Your task to perform on an android device: change notifications settings Image 0: 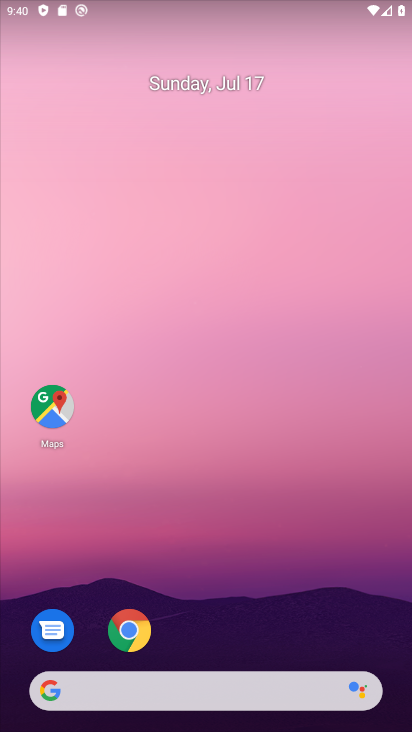
Step 0: drag from (249, 620) to (309, 0)
Your task to perform on an android device: change notifications settings Image 1: 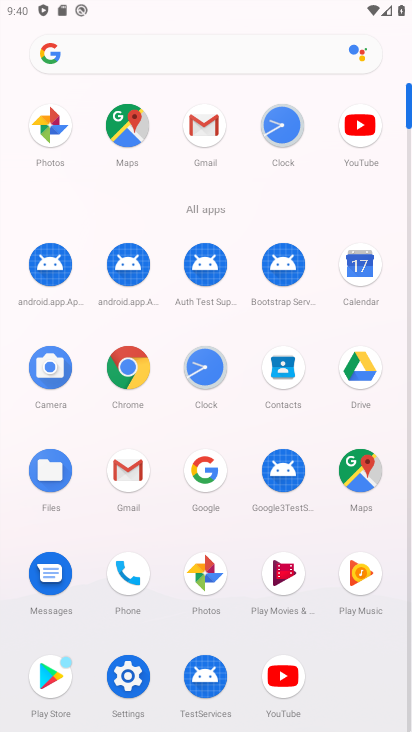
Step 1: click (131, 692)
Your task to perform on an android device: change notifications settings Image 2: 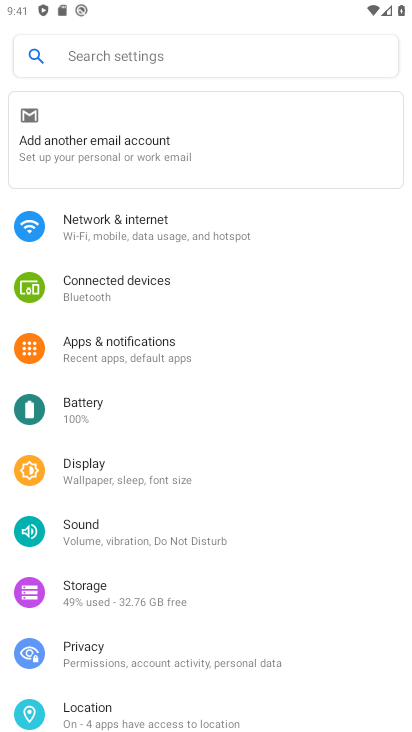
Step 2: click (148, 358)
Your task to perform on an android device: change notifications settings Image 3: 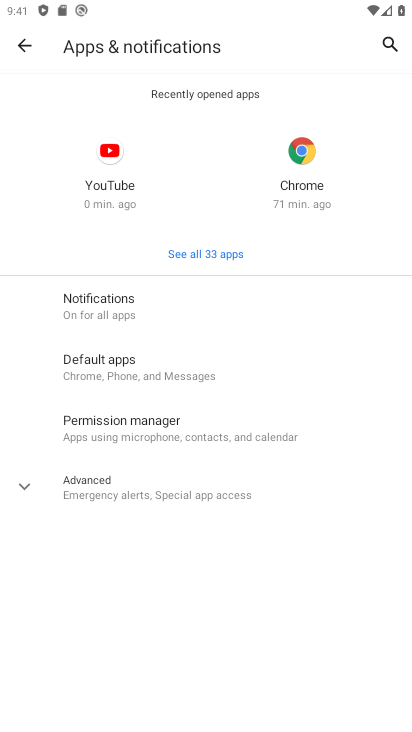
Step 3: click (116, 309)
Your task to perform on an android device: change notifications settings Image 4: 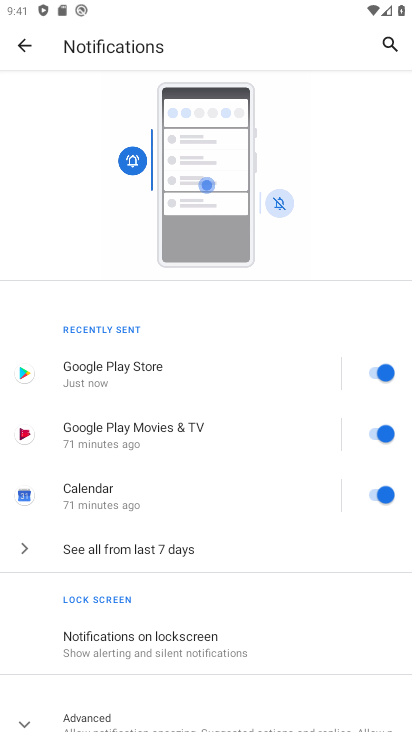
Step 4: click (135, 555)
Your task to perform on an android device: change notifications settings Image 5: 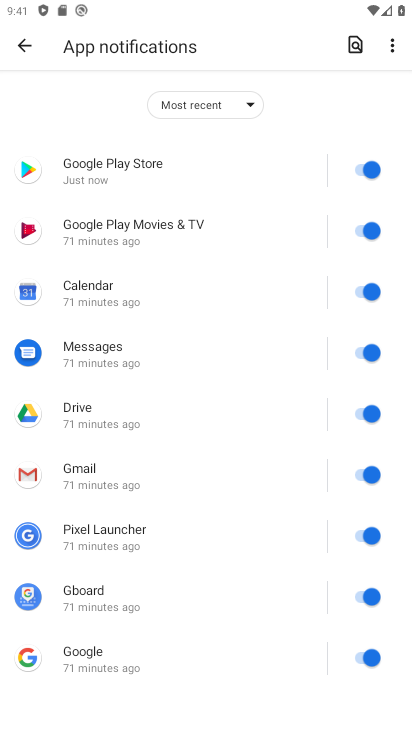
Step 5: click (361, 172)
Your task to perform on an android device: change notifications settings Image 6: 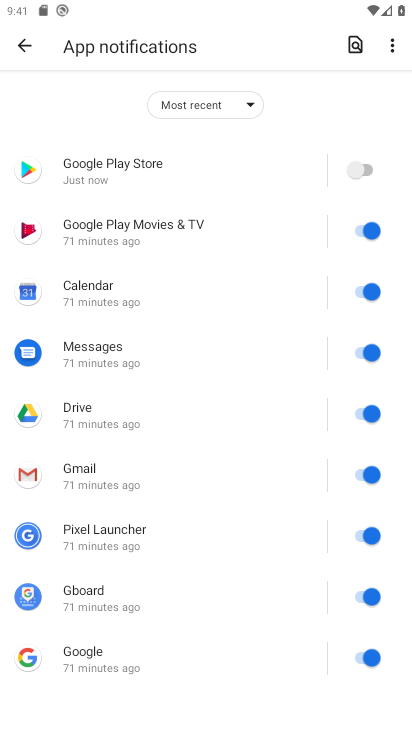
Step 6: click (357, 229)
Your task to perform on an android device: change notifications settings Image 7: 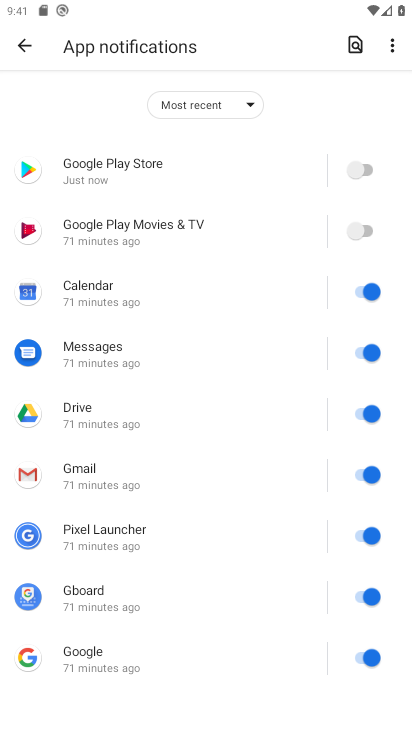
Step 7: click (367, 287)
Your task to perform on an android device: change notifications settings Image 8: 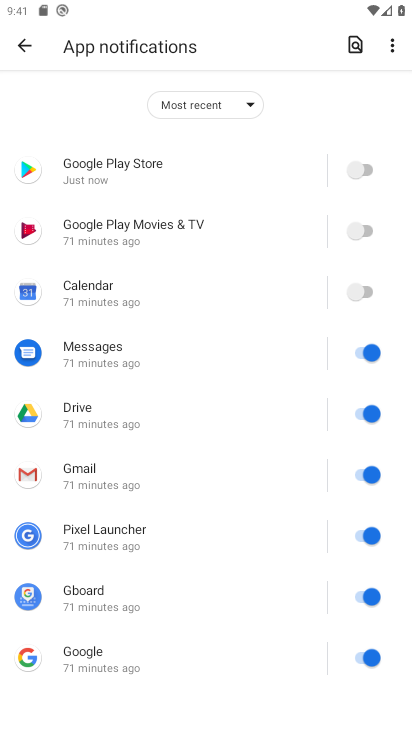
Step 8: click (354, 363)
Your task to perform on an android device: change notifications settings Image 9: 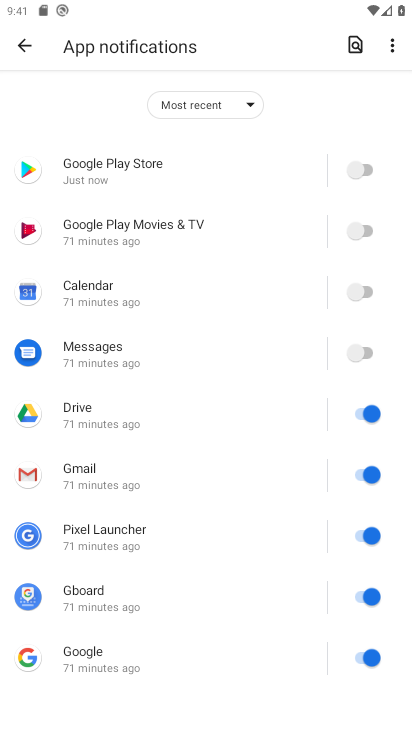
Step 9: click (357, 414)
Your task to perform on an android device: change notifications settings Image 10: 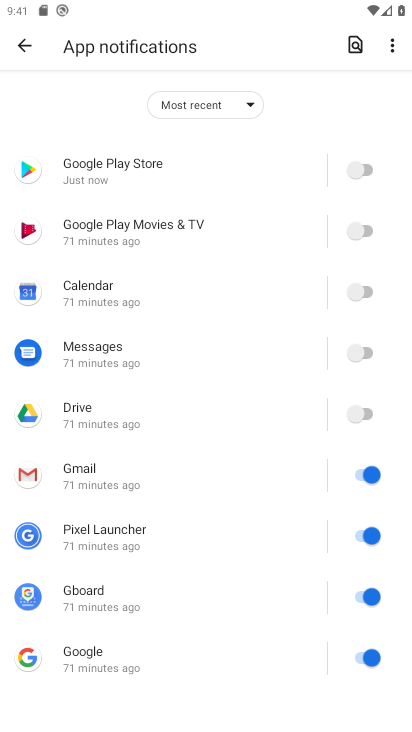
Step 10: click (358, 486)
Your task to perform on an android device: change notifications settings Image 11: 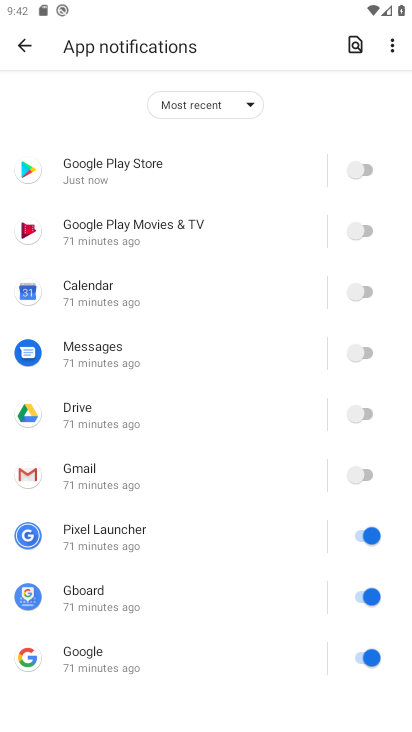
Step 11: click (350, 537)
Your task to perform on an android device: change notifications settings Image 12: 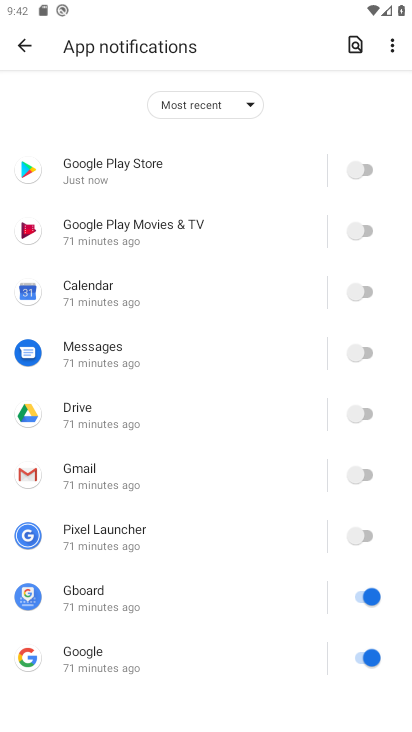
Step 12: click (368, 583)
Your task to perform on an android device: change notifications settings Image 13: 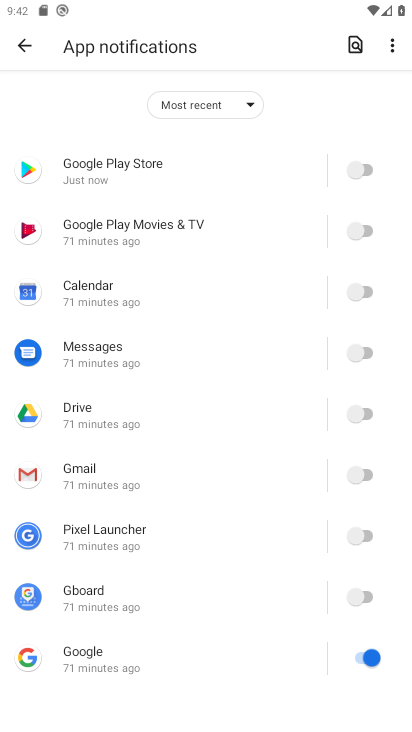
Step 13: click (354, 667)
Your task to perform on an android device: change notifications settings Image 14: 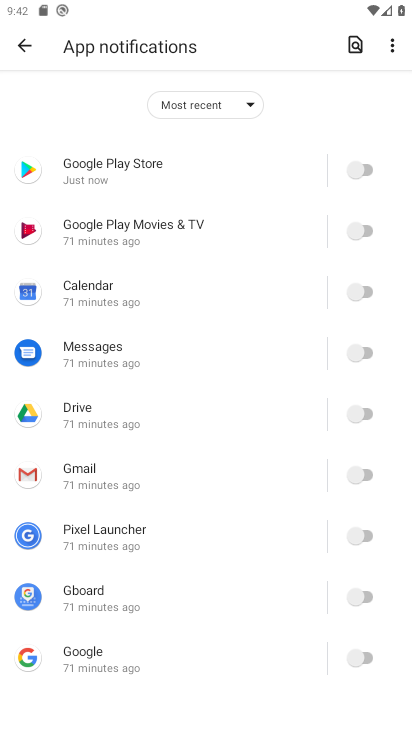
Step 14: task complete